Your task to perform on an android device: Go to eBay Image 0: 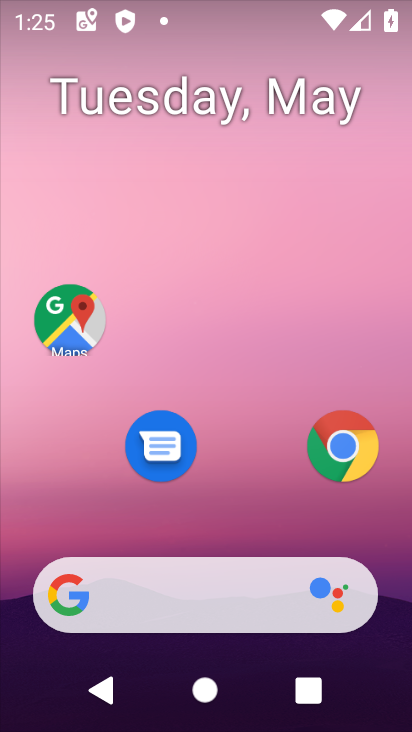
Step 0: click (320, 456)
Your task to perform on an android device: Go to eBay Image 1: 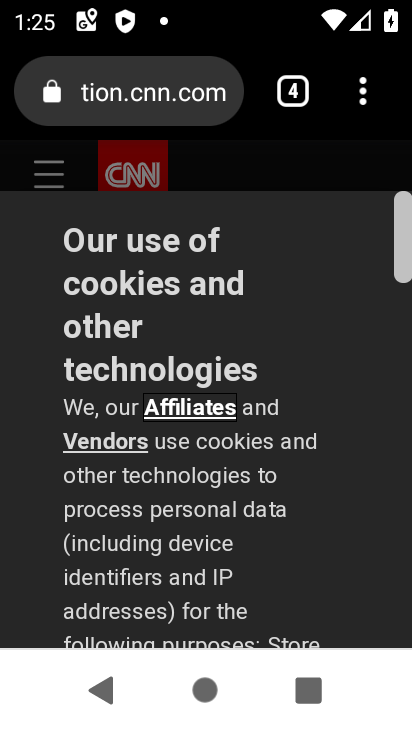
Step 1: click (299, 77)
Your task to perform on an android device: Go to eBay Image 2: 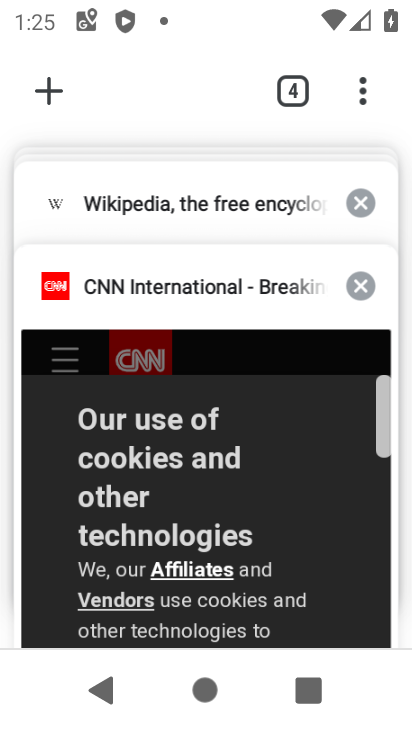
Step 2: click (42, 98)
Your task to perform on an android device: Go to eBay Image 3: 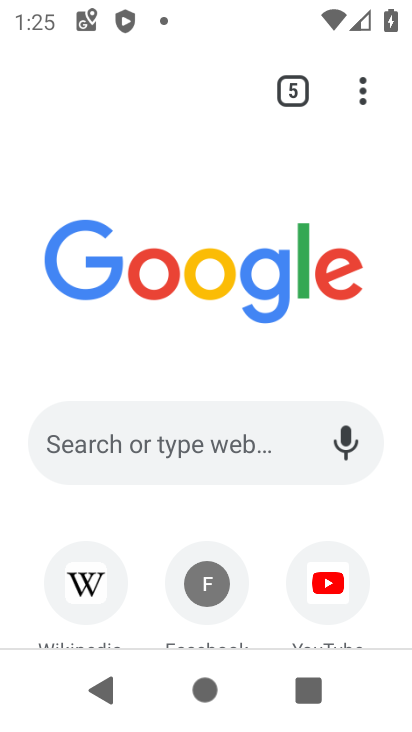
Step 3: drag from (159, 526) to (90, 126)
Your task to perform on an android device: Go to eBay Image 4: 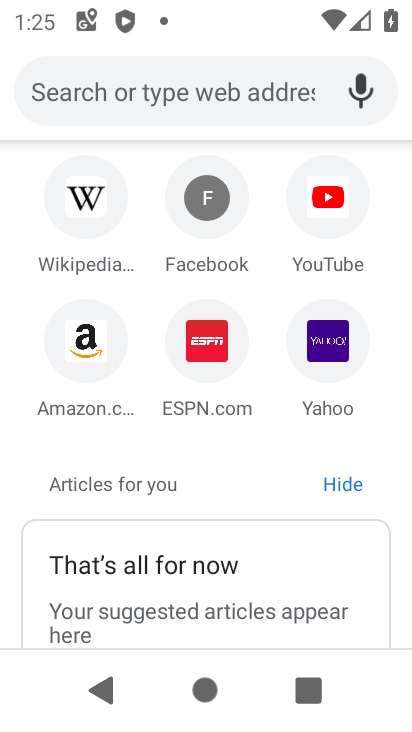
Step 4: click (154, 111)
Your task to perform on an android device: Go to eBay Image 5: 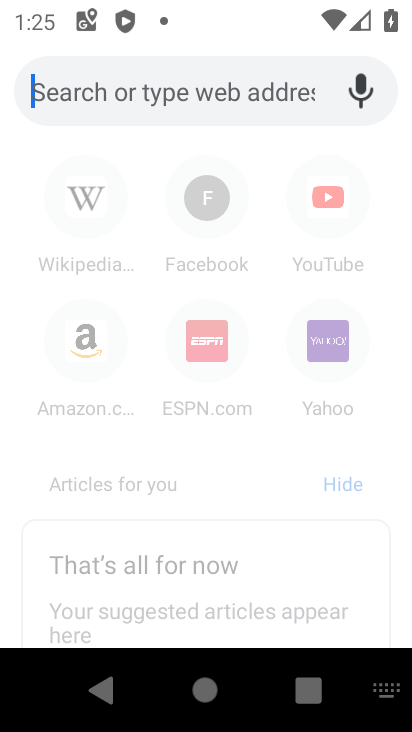
Step 5: type "ebayy"
Your task to perform on an android device: Go to eBay Image 6: 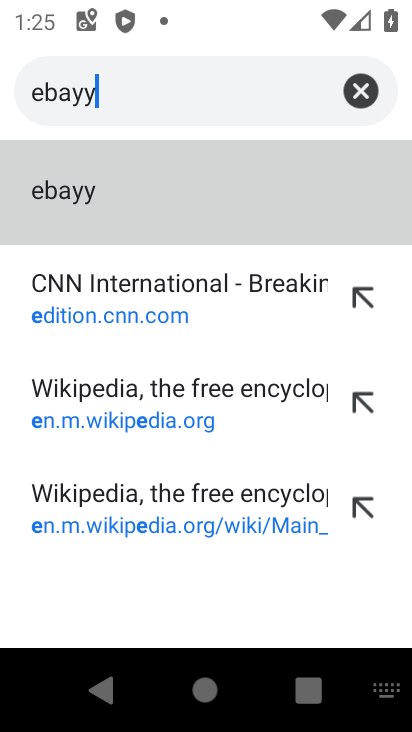
Step 6: type ""
Your task to perform on an android device: Go to eBay Image 7: 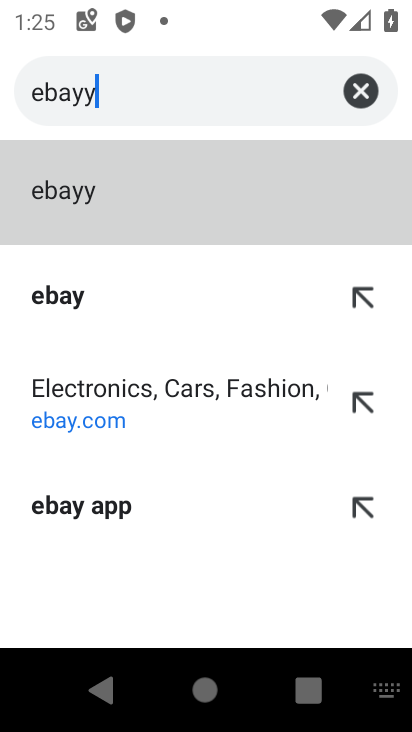
Step 7: click (144, 416)
Your task to perform on an android device: Go to eBay Image 8: 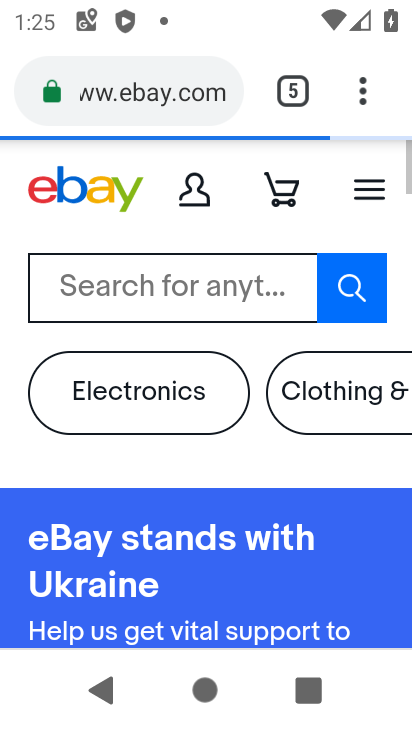
Step 8: task complete